Your task to perform on an android device: View the shopping cart on target.com. Search for duracell triple a on target.com, select the first entry, add it to the cart, then select checkout. Image 0: 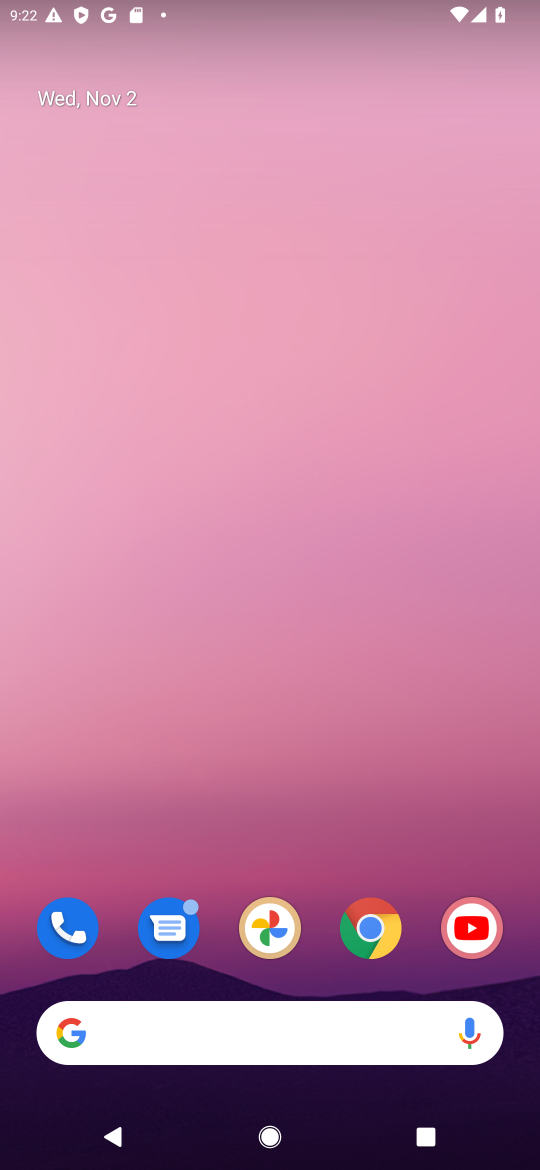
Step 0: click (369, 930)
Your task to perform on an android device: View the shopping cart on target.com. Search for duracell triple a on target.com, select the first entry, add it to the cart, then select checkout. Image 1: 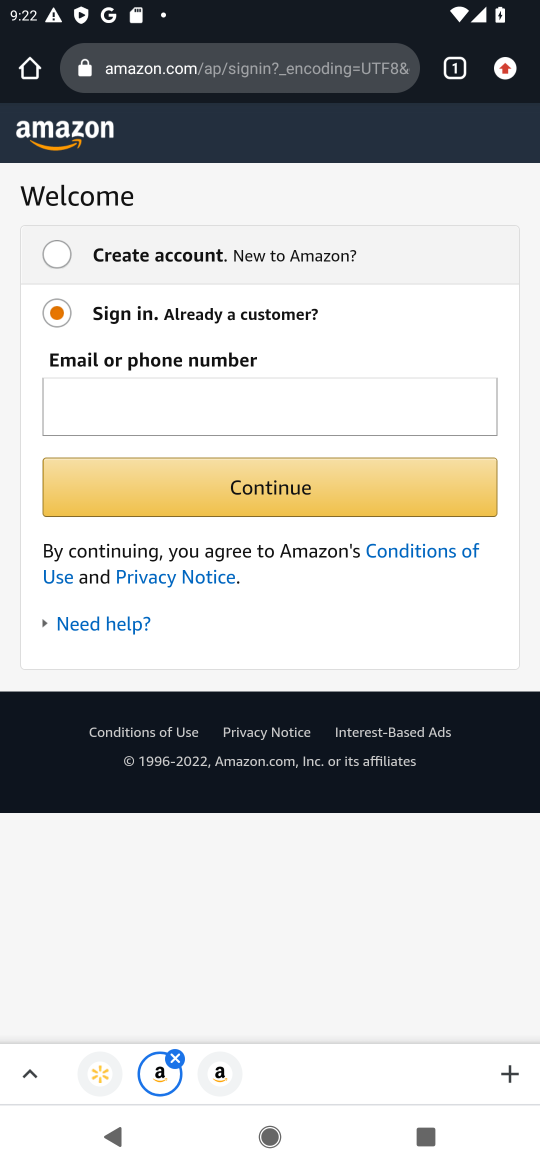
Step 1: click (172, 57)
Your task to perform on an android device: View the shopping cart on target.com. Search for duracell triple a on target.com, select the first entry, add it to the cart, then select checkout. Image 2: 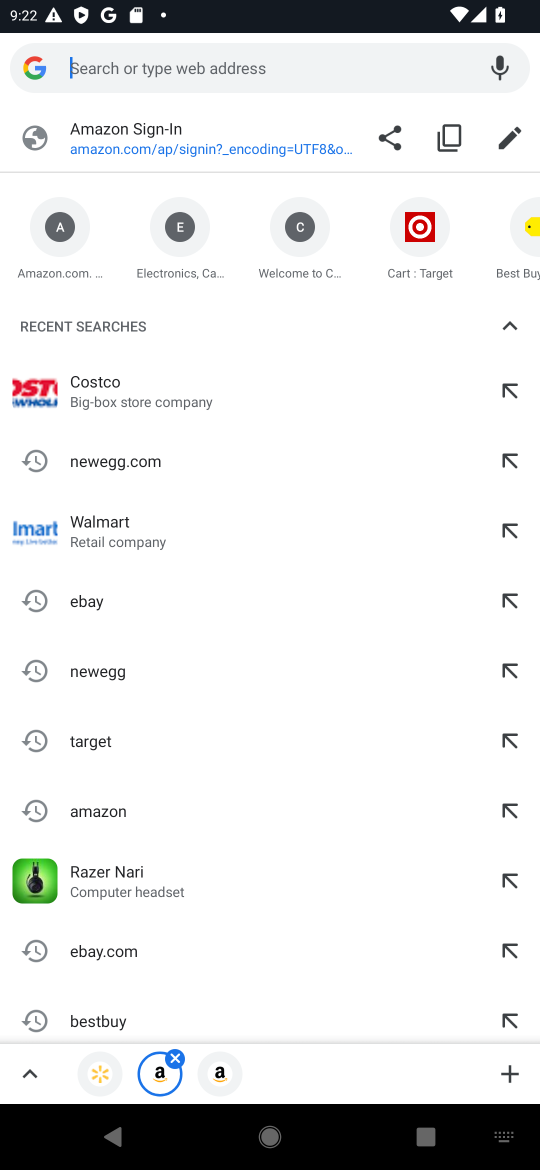
Step 2: type "target.com"
Your task to perform on an android device: View the shopping cart on target.com. Search for duracell triple a on target.com, select the first entry, add it to the cart, then select checkout. Image 3: 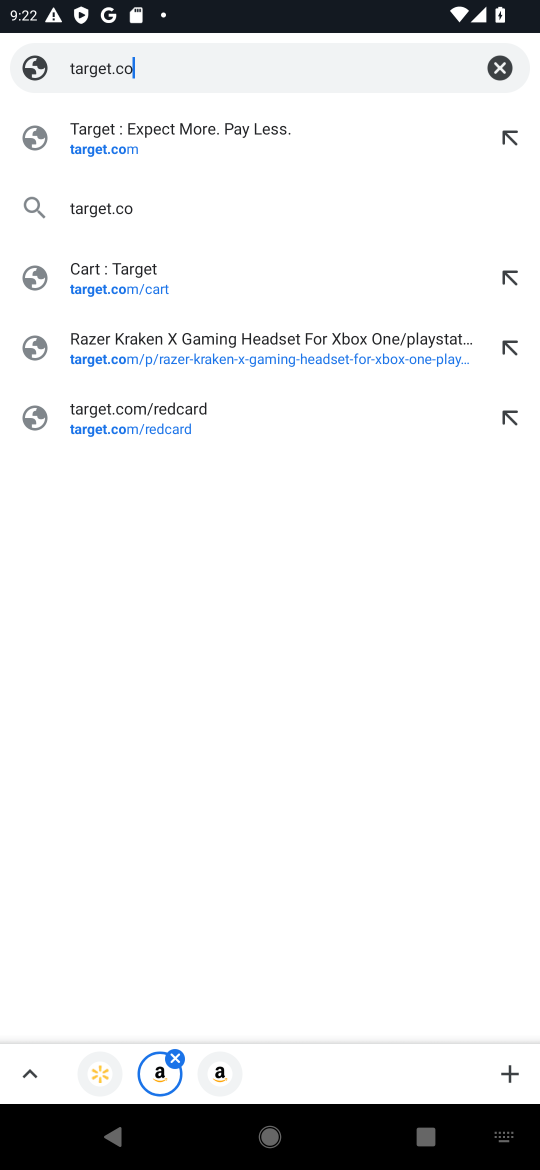
Step 3: type ""
Your task to perform on an android device: View the shopping cart on target.com. Search for duracell triple a on target.com, select the first entry, add it to the cart, then select checkout. Image 4: 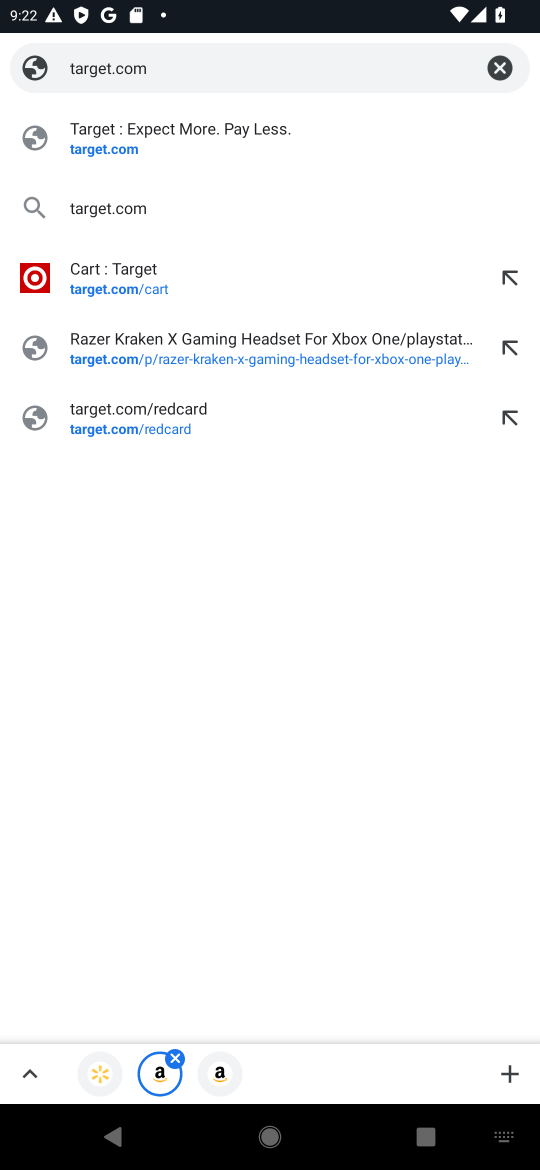
Step 4: click (331, 136)
Your task to perform on an android device: View the shopping cart on target.com. Search for duracell triple a on target.com, select the first entry, add it to the cart, then select checkout. Image 5: 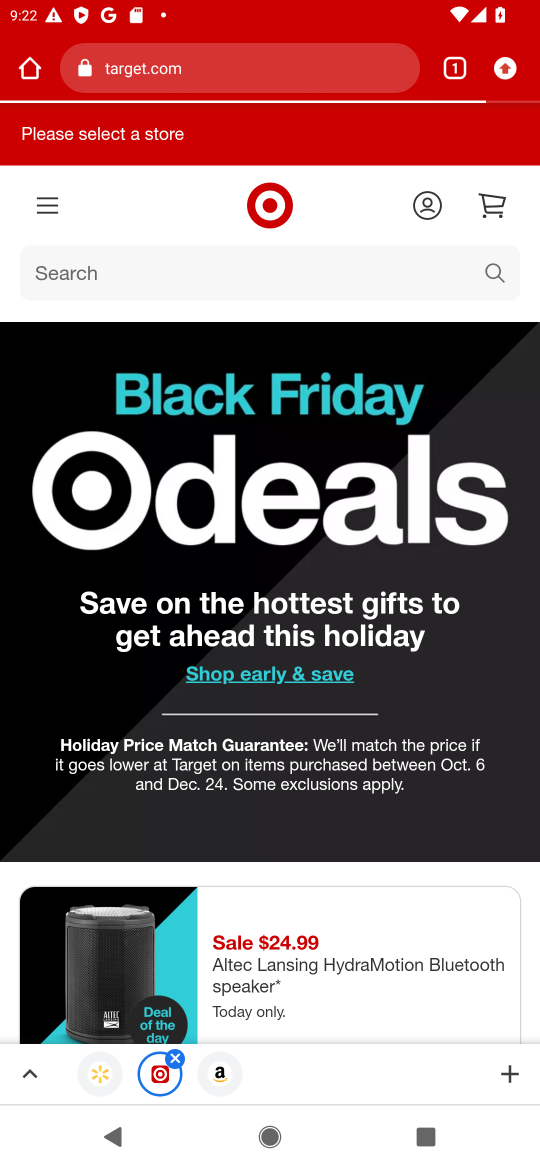
Step 5: click (210, 269)
Your task to perform on an android device: View the shopping cart on target.com. Search for duracell triple a on target.com, select the first entry, add it to the cart, then select checkout. Image 6: 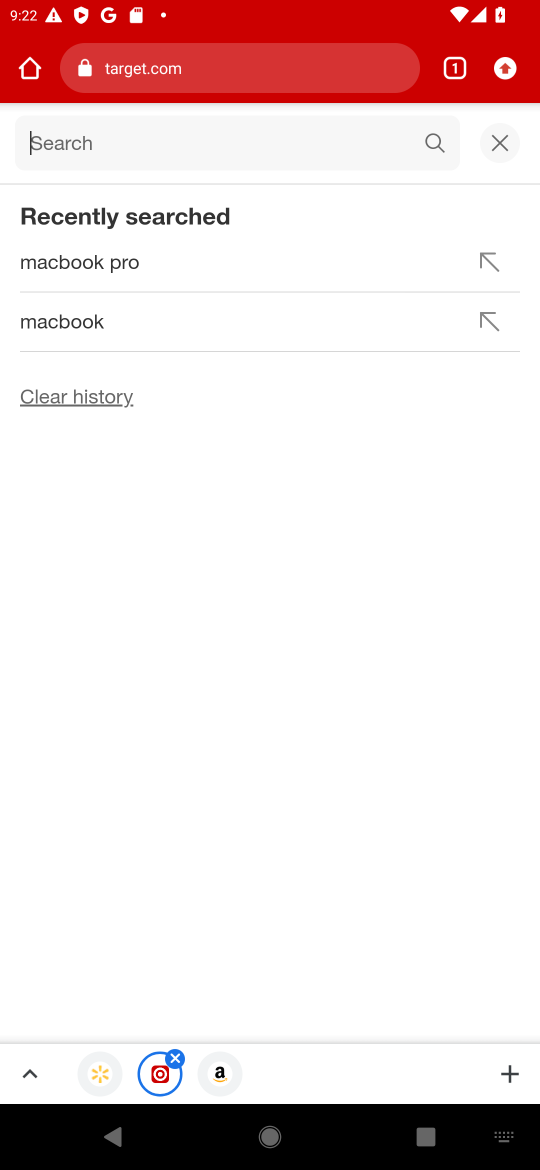
Step 6: click (508, 142)
Your task to perform on an android device: View the shopping cart on target.com. Search for duracell triple a on target.com, select the first entry, add it to the cart, then select checkout. Image 7: 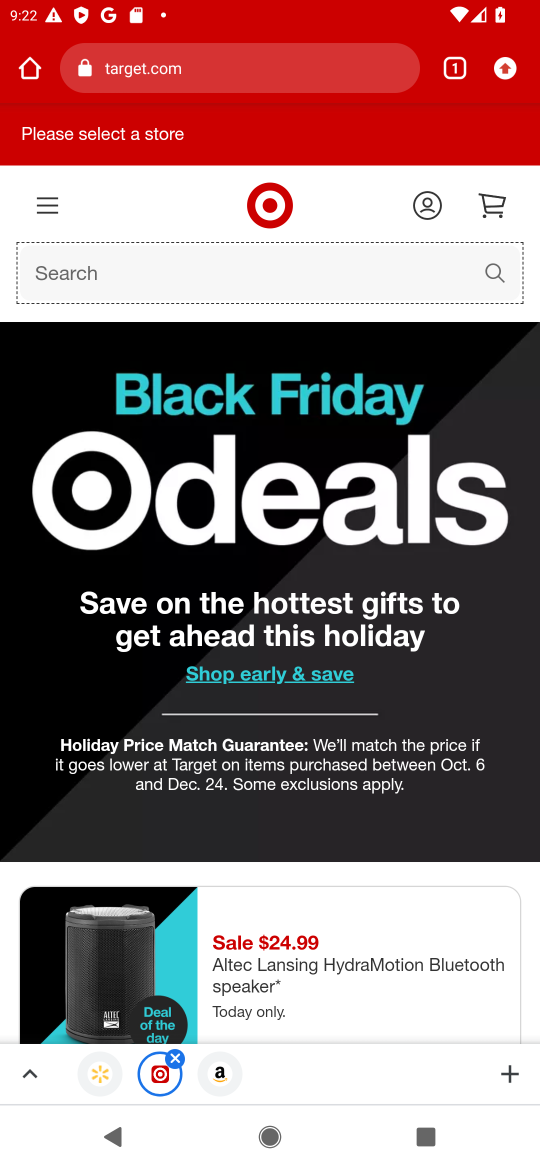
Step 7: click (494, 207)
Your task to perform on an android device: View the shopping cart on target.com. Search for duracell triple a on target.com, select the first entry, add it to the cart, then select checkout. Image 8: 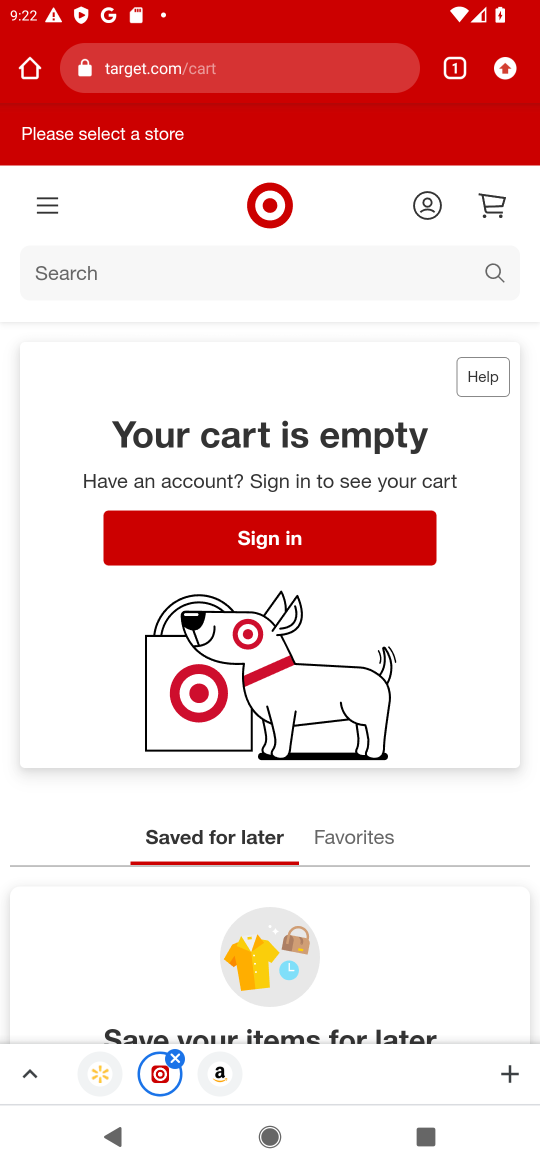
Step 8: drag from (380, 785) to (347, 234)
Your task to perform on an android device: View the shopping cart on target.com. Search for duracell triple a on target.com, select the first entry, add it to the cart, then select checkout. Image 9: 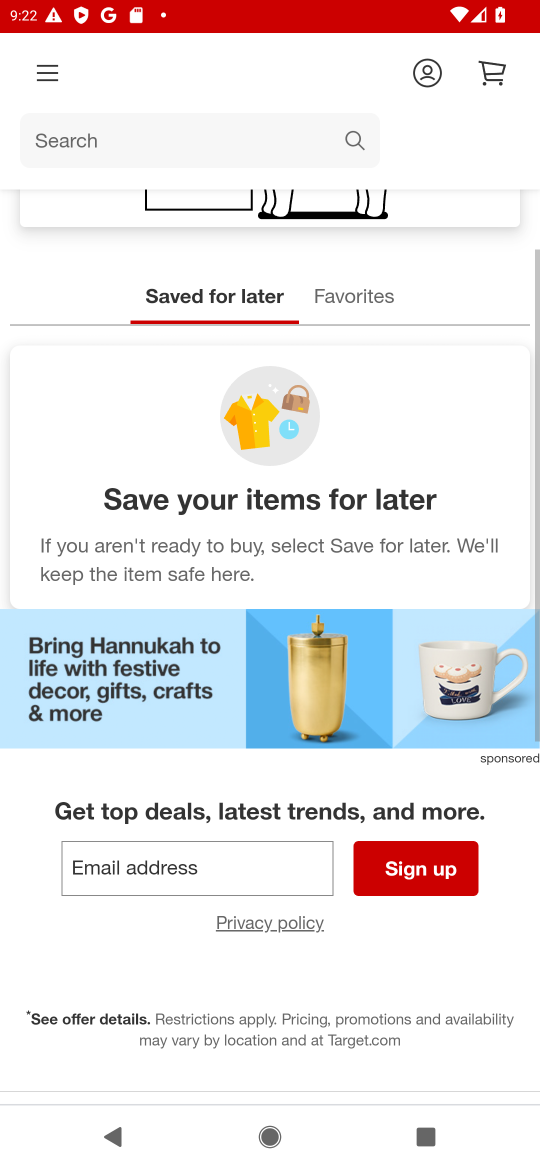
Step 9: drag from (377, 784) to (403, 338)
Your task to perform on an android device: View the shopping cart on target.com. Search for duracell triple a on target.com, select the first entry, add it to the cart, then select checkout. Image 10: 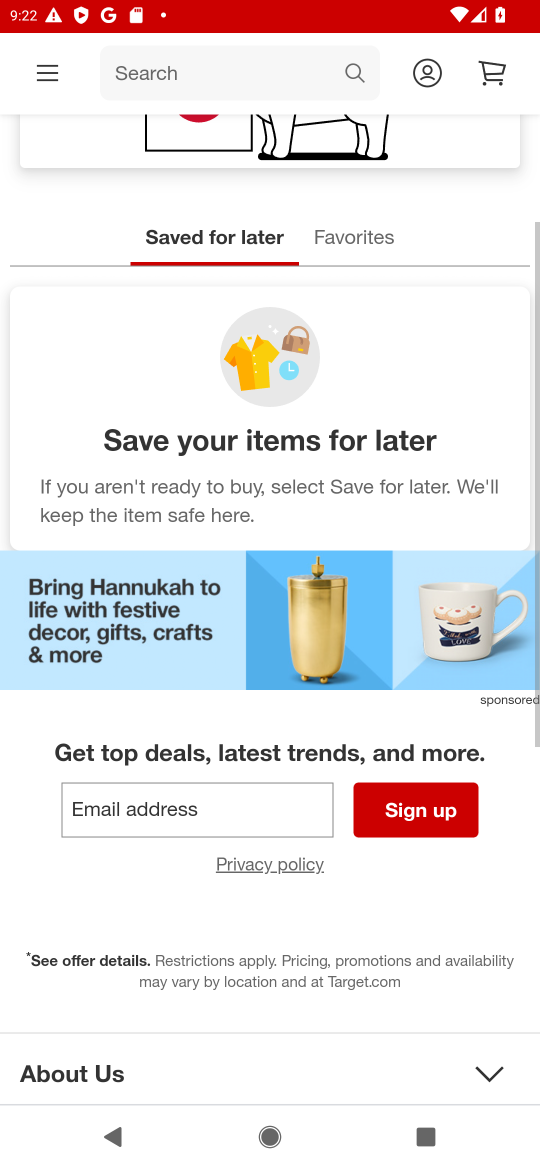
Step 10: drag from (376, 630) to (354, 360)
Your task to perform on an android device: View the shopping cart on target.com. Search for duracell triple a on target.com, select the first entry, add it to the cart, then select checkout. Image 11: 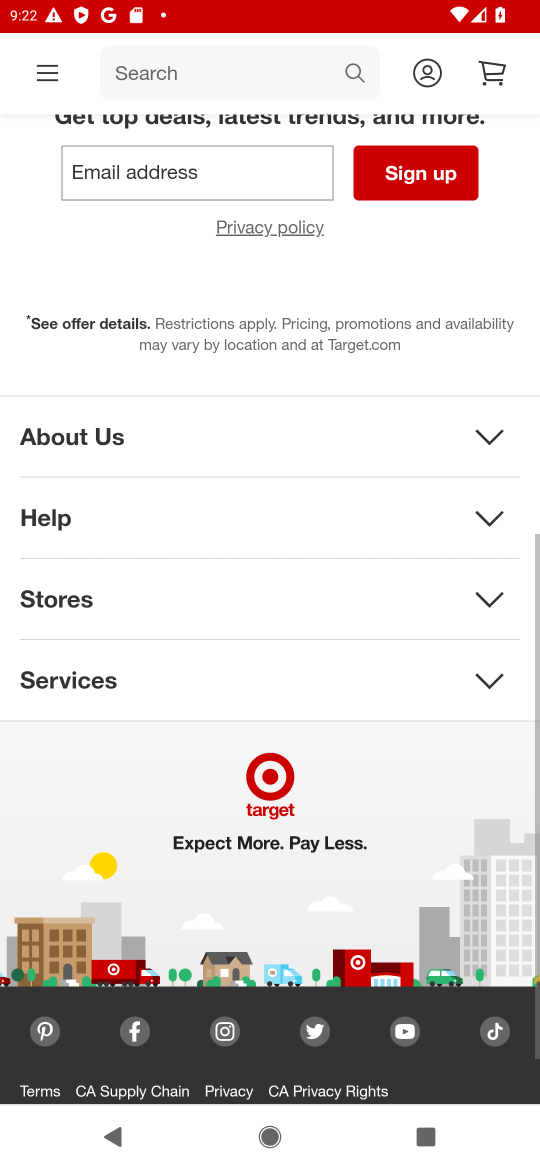
Step 11: drag from (345, 535) to (335, 416)
Your task to perform on an android device: View the shopping cart on target.com. Search for duracell triple a on target.com, select the first entry, add it to the cart, then select checkout. Image 12: 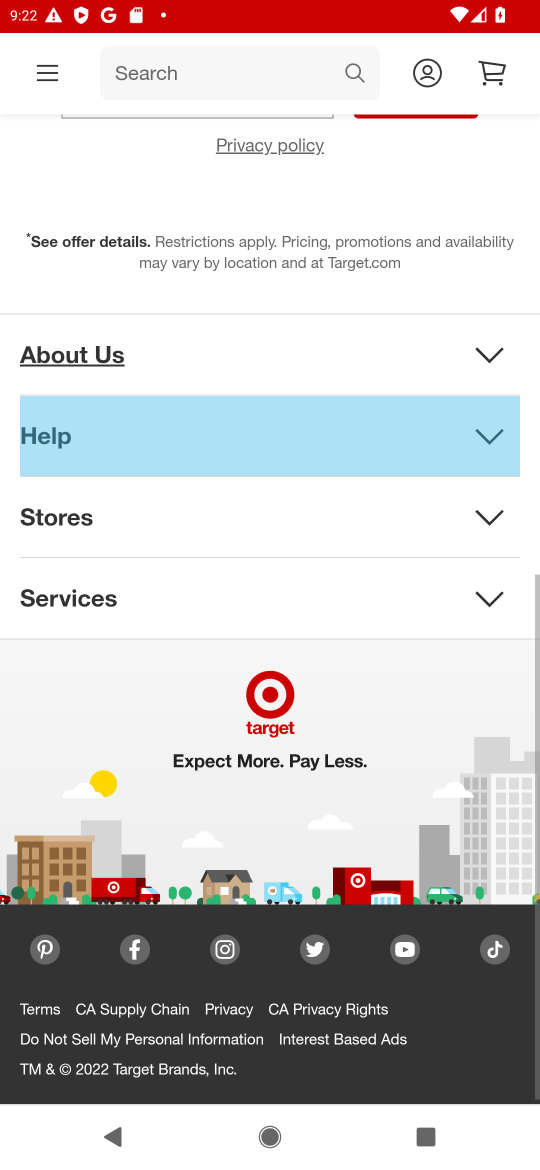
Step 12: drag from (335, 713) to (362, 349)
Your task to perform on an android device: View the shopping cart on target.com. Search for duracell triple a on target.com, select the first entry, add it to the cart, then select checkout. Image 13: 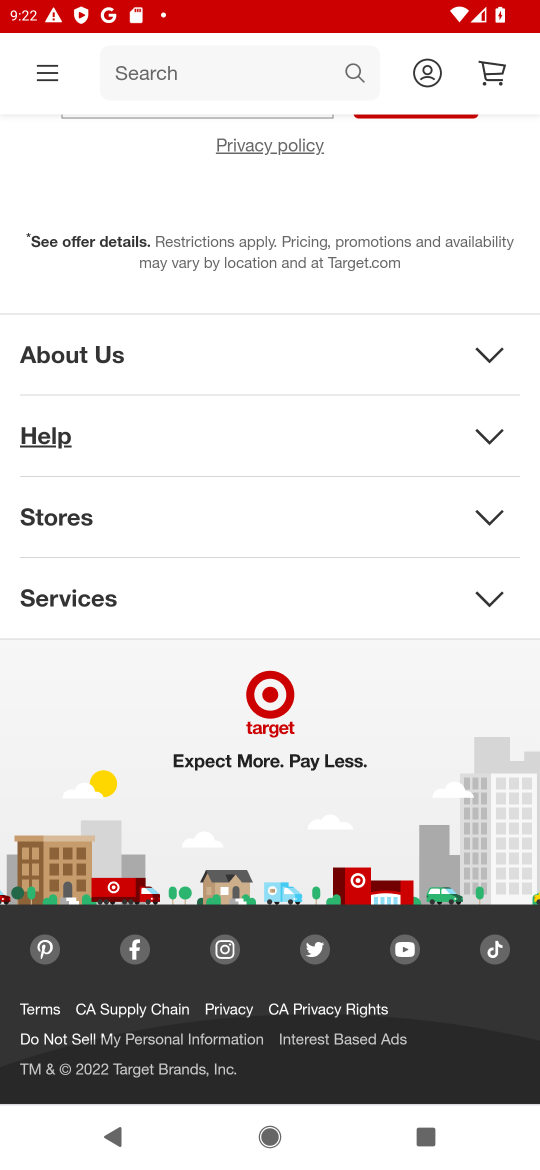
Step 13: drag from (342, 608) to (363, 201)
Your task to perform on an android device: View the shopping cart on target.com. Search for duracell triple a on target.com, select the first entry, add it to the cart, then select checkout. Image 14: 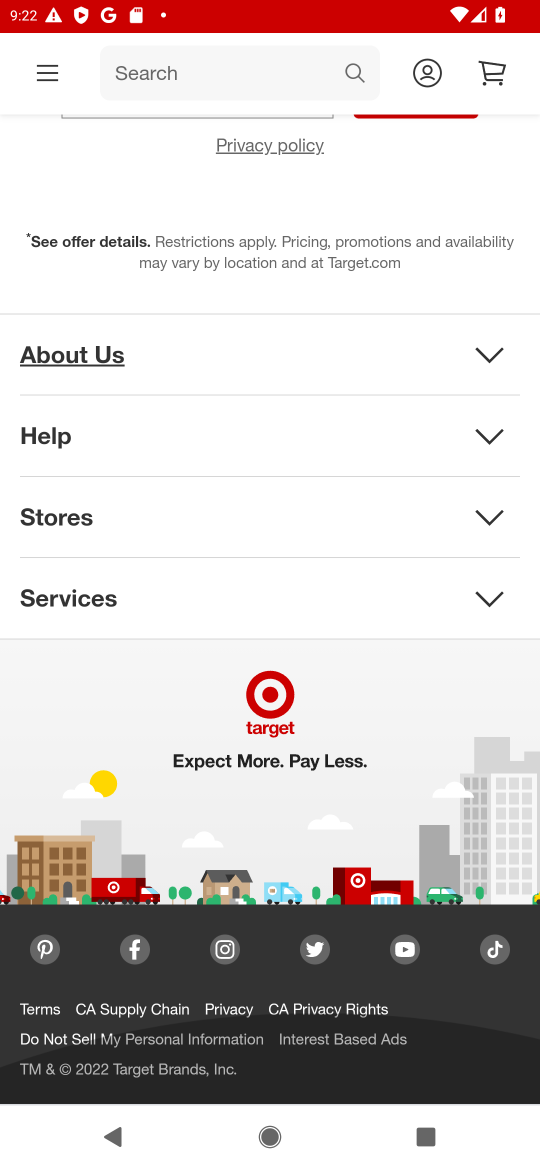
Step 14: drag from (392, 631) to (412, 776)
Your task to perform on an android device: View the shopping cart on target.com. Search for duracell triple a on target.com, select the first entry, add it to the cart, then select checkout. Image 15: 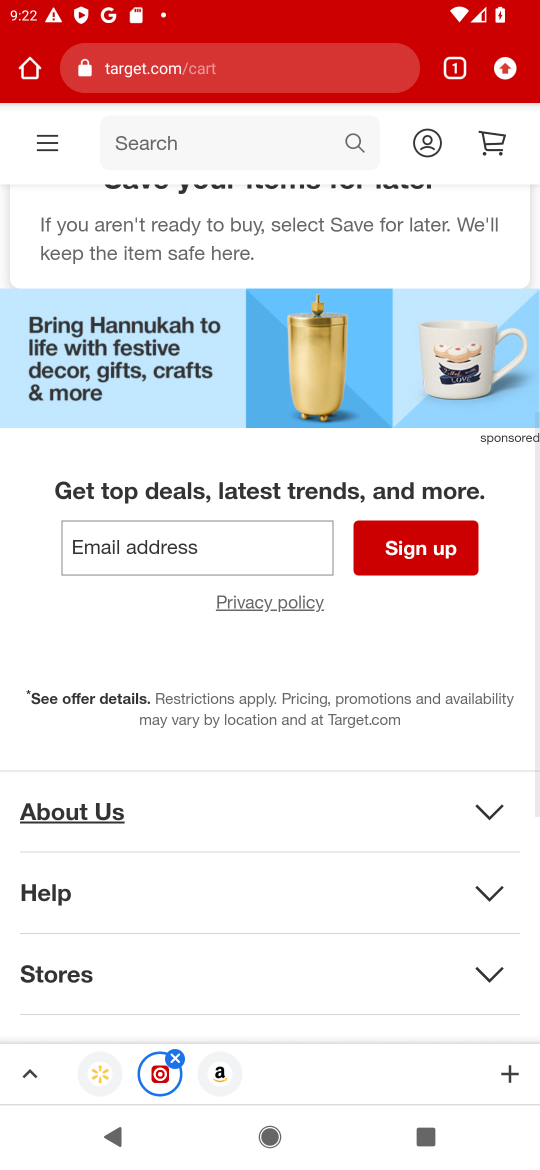
Step 15: drag from (352, 400) to (409, 812)
Your task to perform on an android device: View the shopping cart on target.com. Search for duracell triple a on target.com, select the first entry, add it to the cart, then select checkout. Image 16: 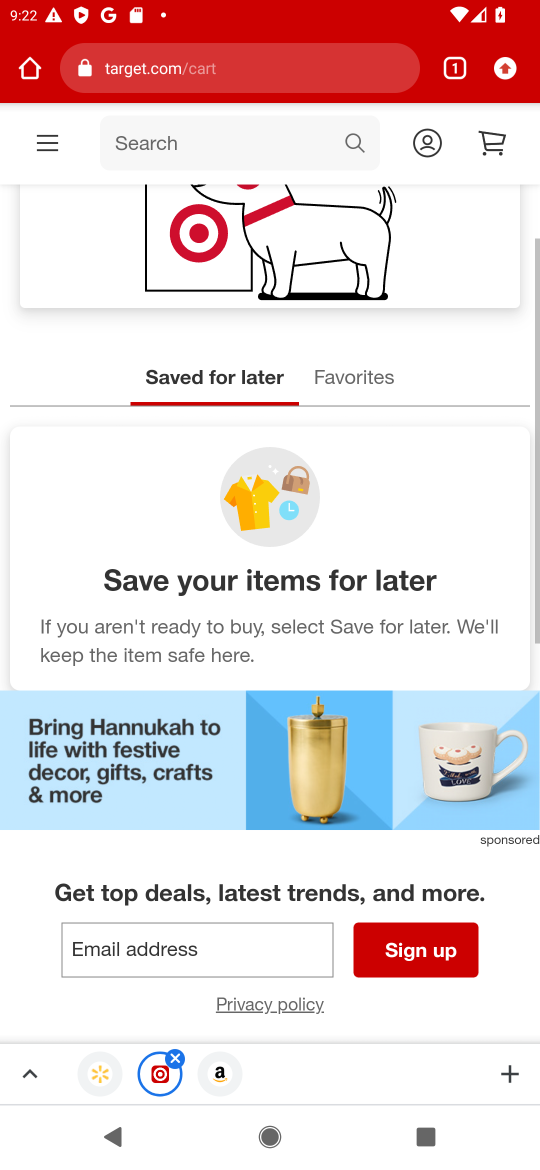
Step 16: drag from (280, 403) to (306, 791)
Your task to perform on an android device: View the shopping cart on target.com. Search for duracell triple a on target.com, select the first entry, add it to the cart, then select checkout. Image 17: 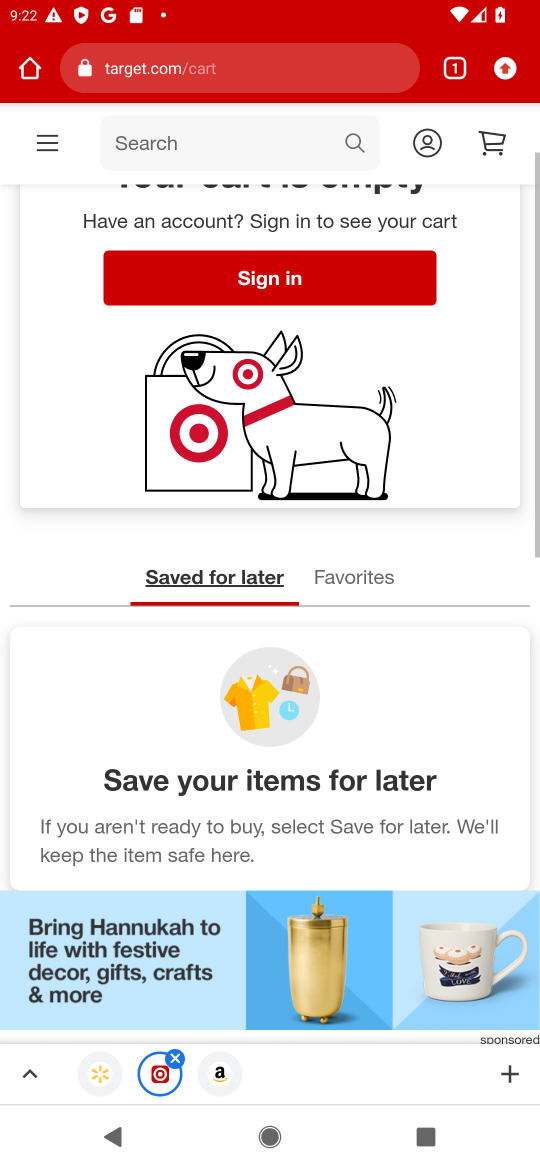
Step 17: drag from (291, 420) to (298, 784)
Your task to perform on an android device: View the shopping cart on target.com. Search for duracell triple a on target.com, select the first entry, add it to the cart, then select checkout. Image 18: 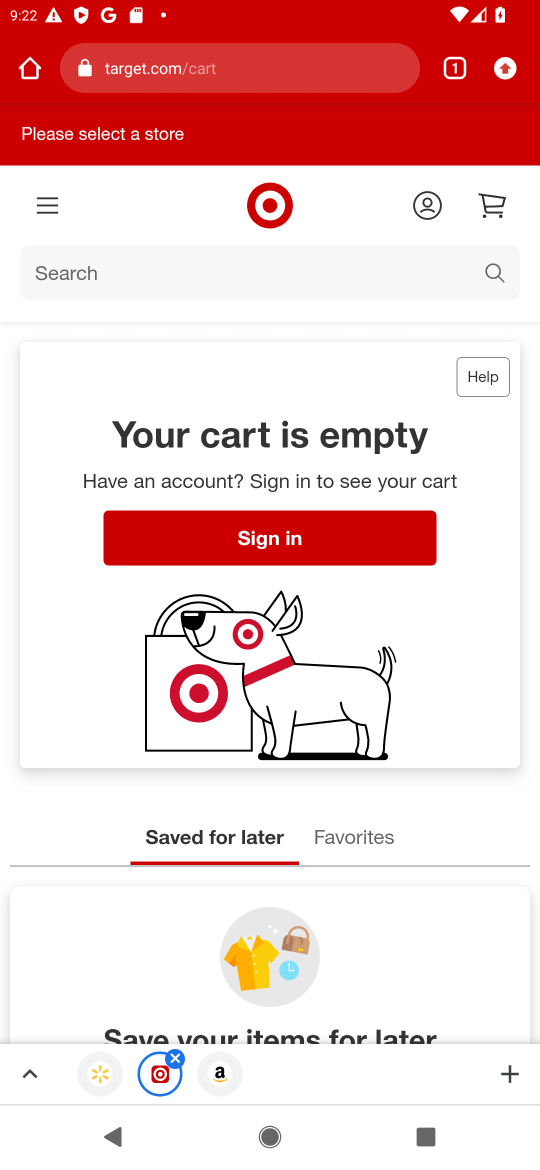
Step 18: drag from (279, 380) to (258, 704)
Your task to perform on an android device: View the shopping cart on target.com. Search for duracell triple a on target.com, select the first entry, add it to the cart, then select checkout. Image 19: 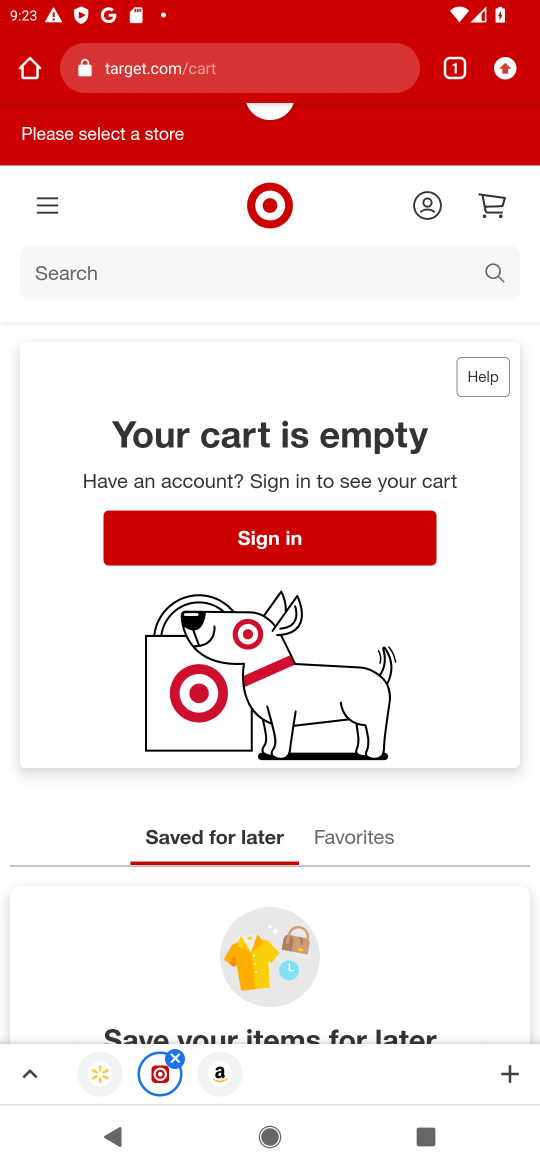
Step 19: drag from (265, 486) to (257, 604)
Your task to perform on an android device: View the shopping cart on target.com. Search for duracell triple a on target.com, select the first entry, add it to the cart, then select checkout. Image 20: 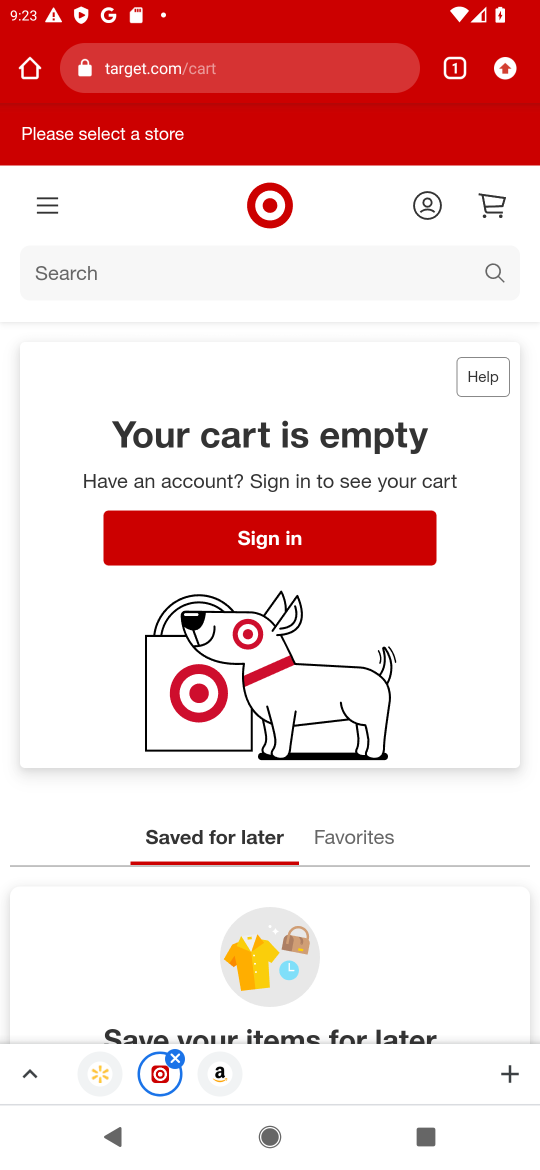
Step 20: click (172, 269)
Your task to perform on an android device: View the shopping cart on target.com. Search for duracell triple a on target.com, select the first entry, add it to the cart, then select checkout. Image 21: 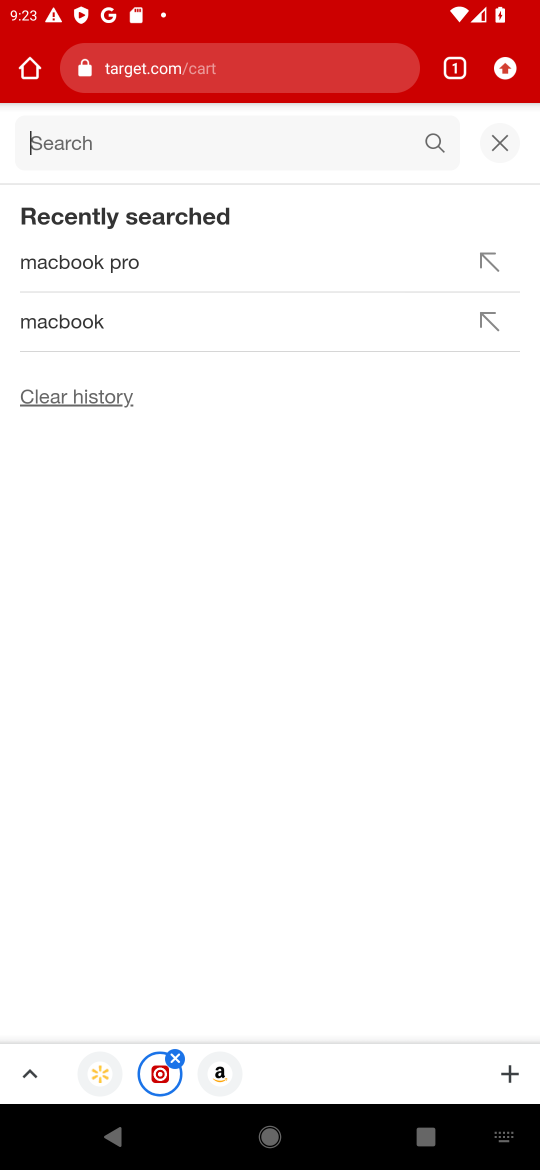
Step 21: type "duracell triple a"
Your task to perform on an android device: View the shopping cart on target.com. Search for duracell triple a on target.com, select the first entry, add it to the cart, then select checkout. Image 22: 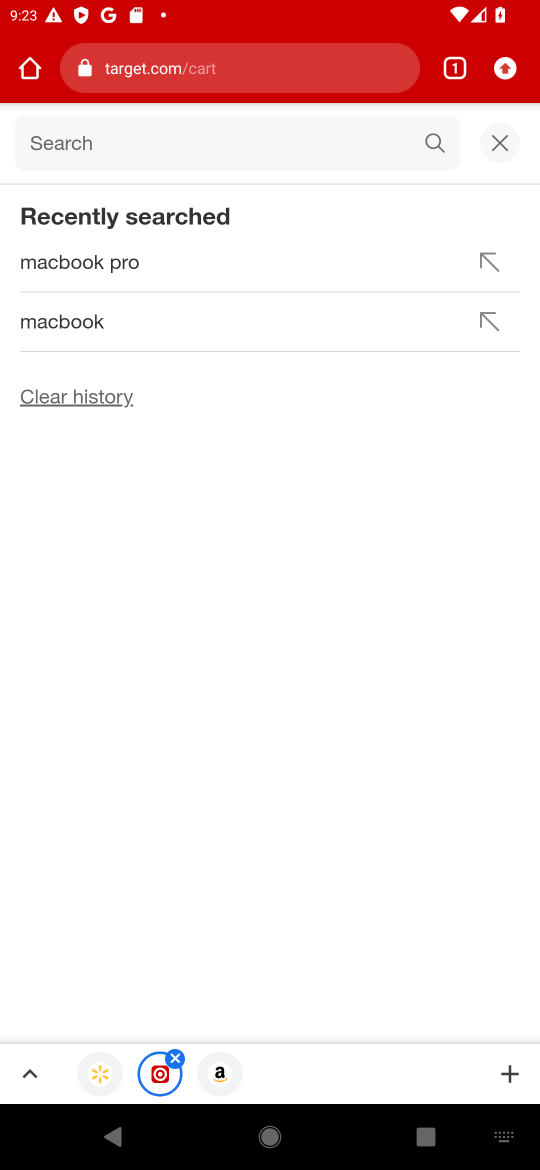
Step 22: type ""
Your task to perform on an android device: View the shopping cart on target.com. Search for duracell triple a on target.com, select the first entry, add it to the cart, then select checkout. Image 23: 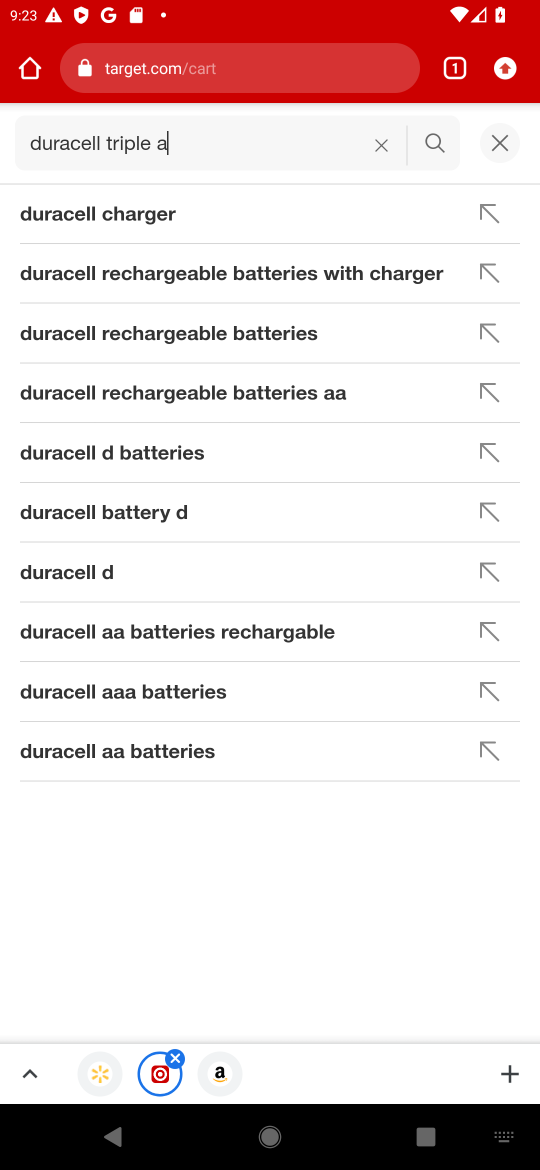
Step 23: press enter
Your task to perform on an android device: View the shopping cart on target.com. Search for duracell triple a on target.com, select the first entry, add it to the cart, then select checkout. Image 24: 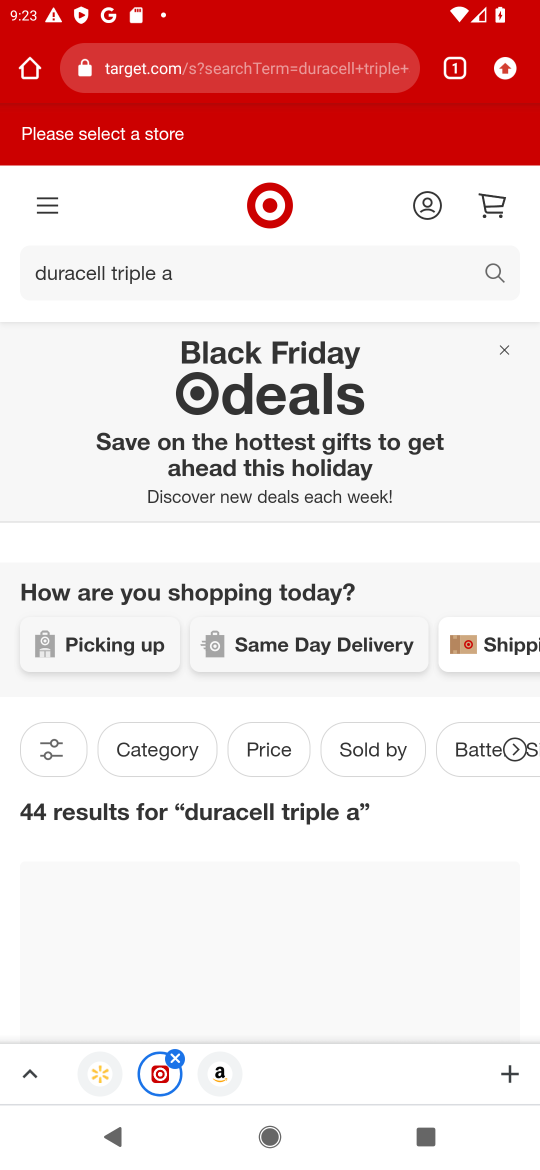
Step 24: drag from (278, 693) to (301, 329)
Your task to perform on an android device: View the shopping cart on target.com. Search for duracell triple a on target.com, select the first entry, add it to the cart, then select checkout. Image 25: 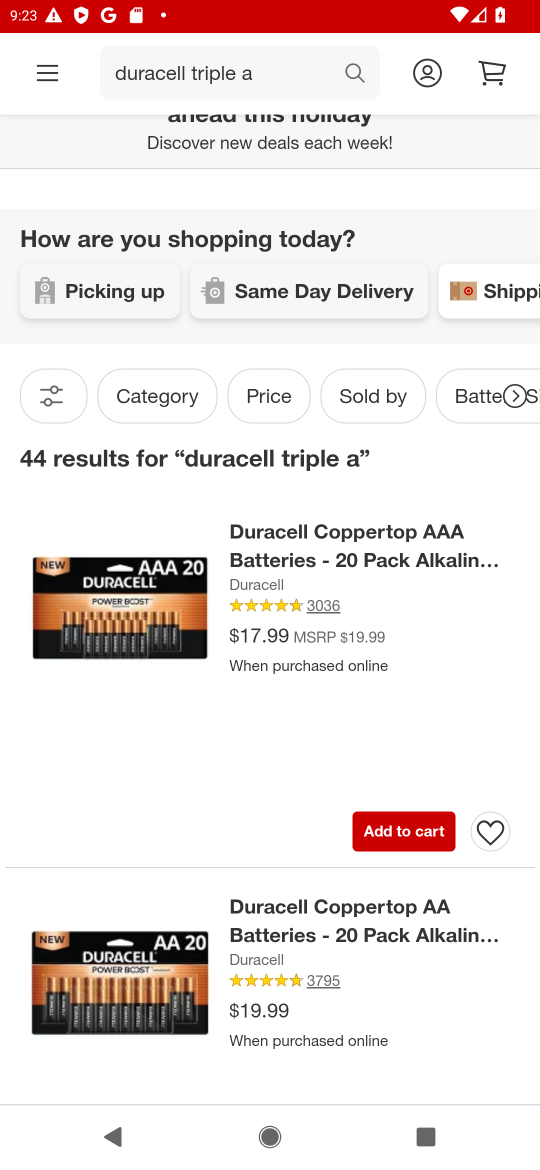
Step 25: click (330, 536)
Your task to perform on an android device: View the shopping cart on target.com. Search for duracell triple a on target.com, select the first entry, add it to the cart, then select checkout. Image 26: 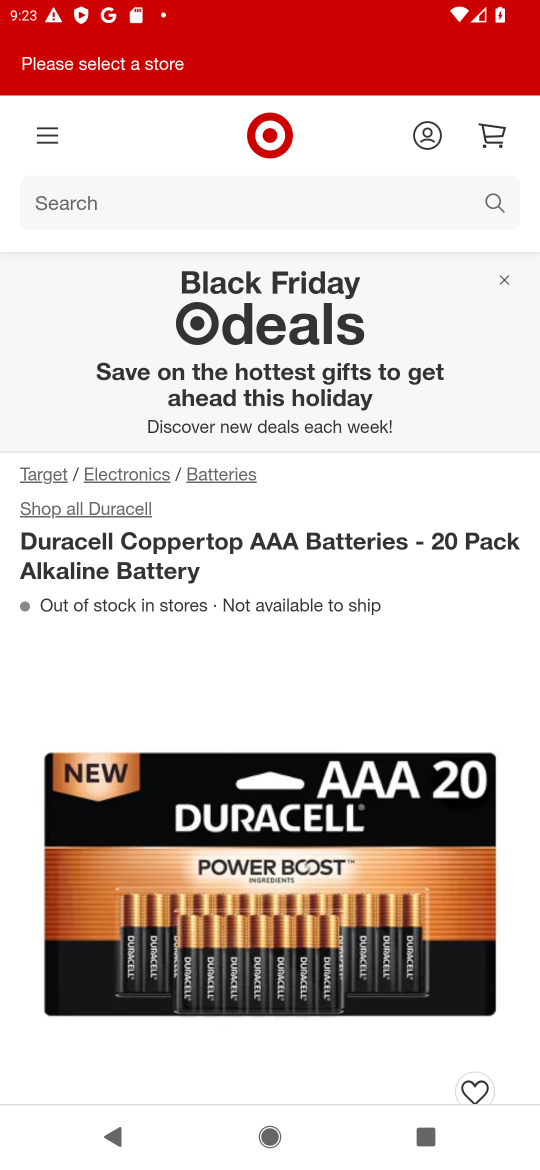
Step 26: drag from (365, 842) to (383, 475)
Your task to perform on an android device: View the shopping cart on target.com. Search for duracell triple a on target.com, select the first entry, add it to the cart, then select checkout. Image 27: 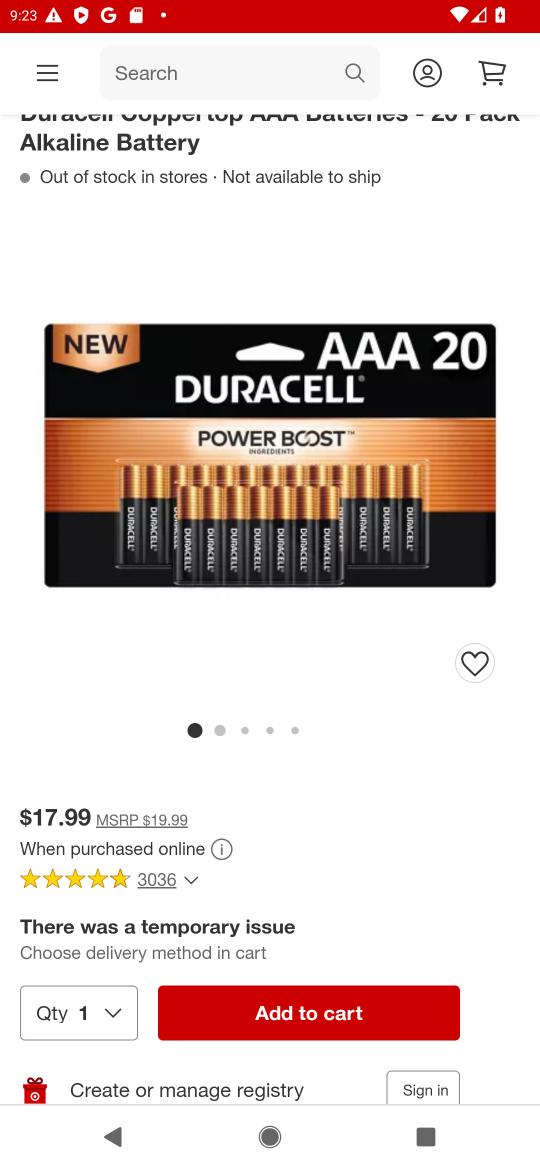
Step 27: drag from (359, 716) to (387, 490)
Your task to perform on an android device: View the shopping cart on target.com. Search for duracell triple a on target.com, select the first entry, add it to the cart, then select checkout. Image 28: 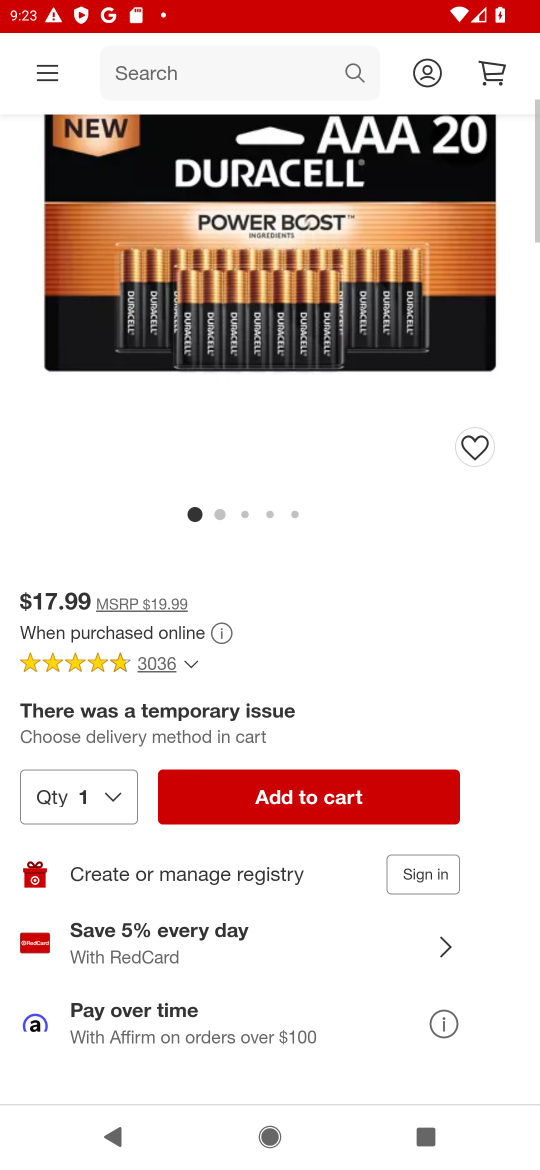
Step 28: drag from (381, 742) to (385, 592)
Your task to perform on an android device: View the shopping cart on target.com. Search for duracell triple a on target.com, select the first entry, add it to the cart, then select checkout. Image 29: 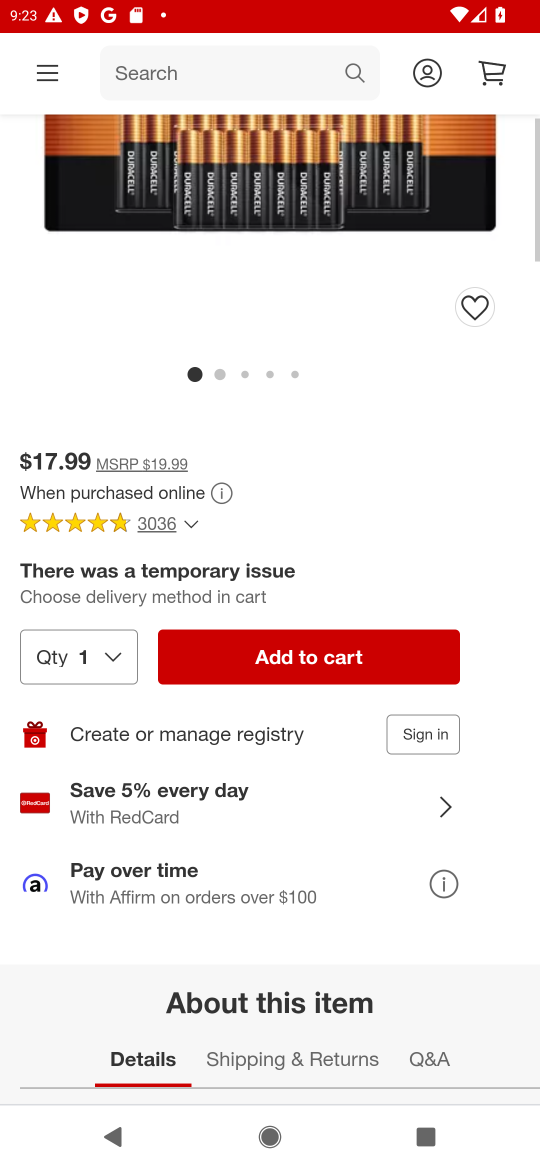
Step 29: click (338, 778)
Your task to perform on an android device: View the shopping cart on target.com. Search for duracell triple a on target.com, select the first entry, add it to the cart, then select checkout. Image 30: 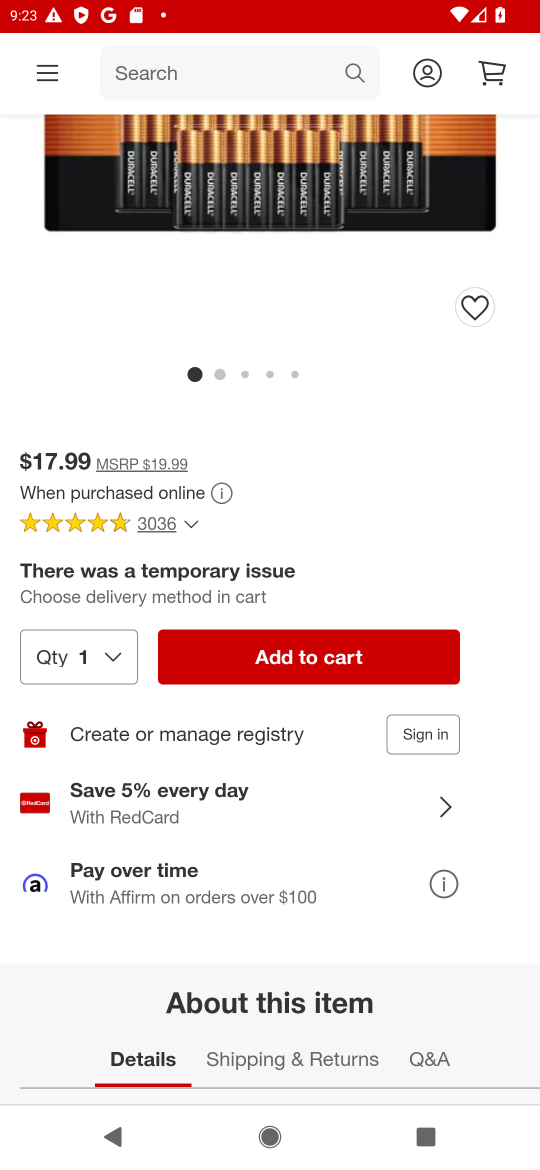
Step 30: click (330, 678)
Your task to perform on an android device: View the shopping cart on target.com. Search for duracell triple a on target.com, select the first entry, add it to the cart, then select checkout. Image 31: 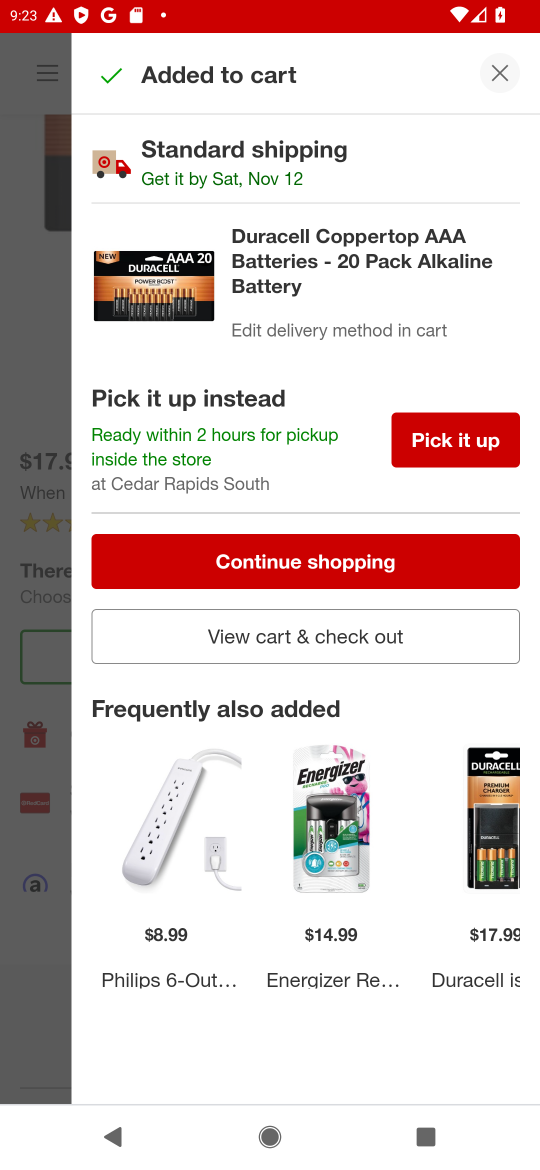
Step 31: click (328, 573)
Your task to perform on an android device: View the shopping cart on target.com. Search for duracell triple a on target.com, select the first entry, add it to the cart, then select checkout. Image 32: 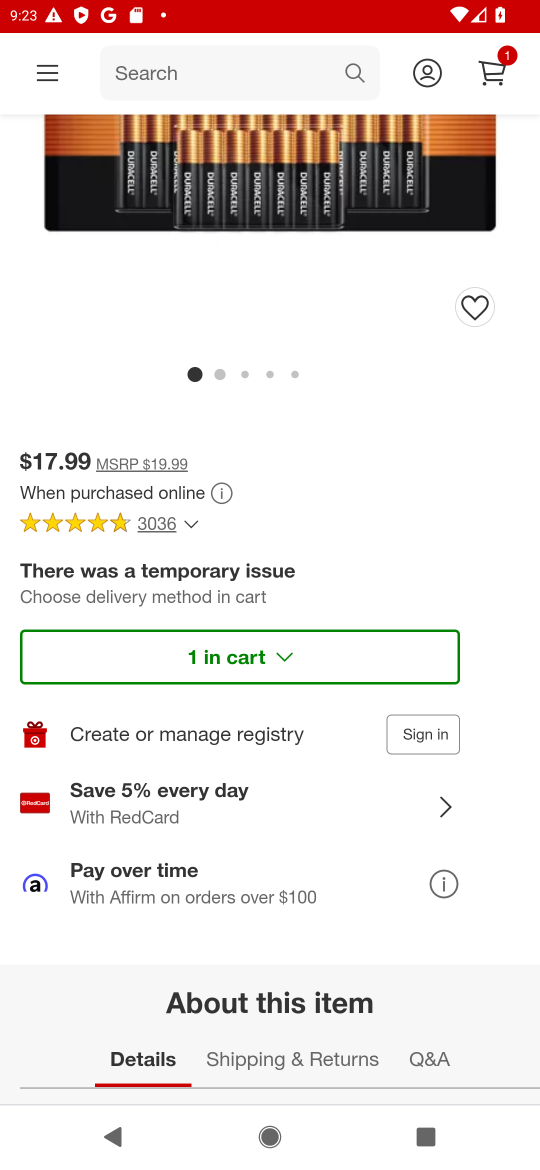
Step 32: task complete